Your task to perform on an android device: Open ESPN.com Image 0: 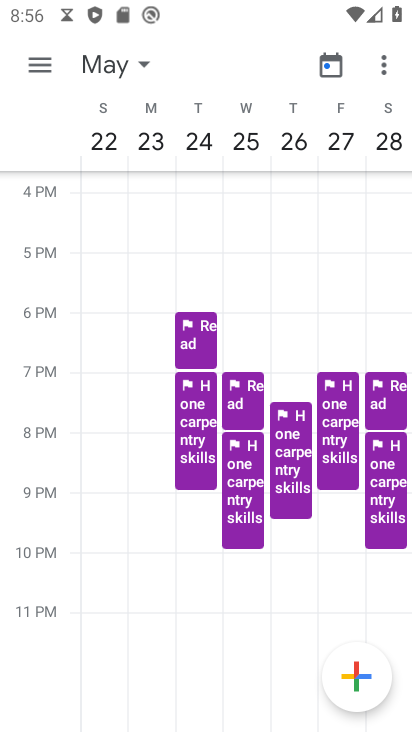
Step 0: press home button
Your task to perform on an android device: Open ESPN.com Image 1: 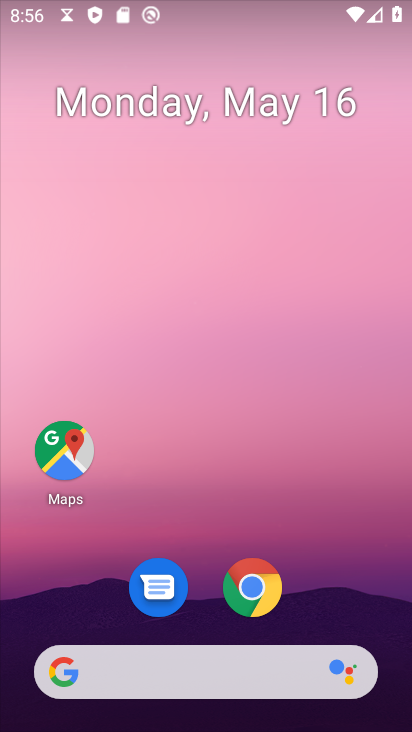
Step 1: click (246, 573)
Your task to perform on an android device: Open ESPN.com Image 2: 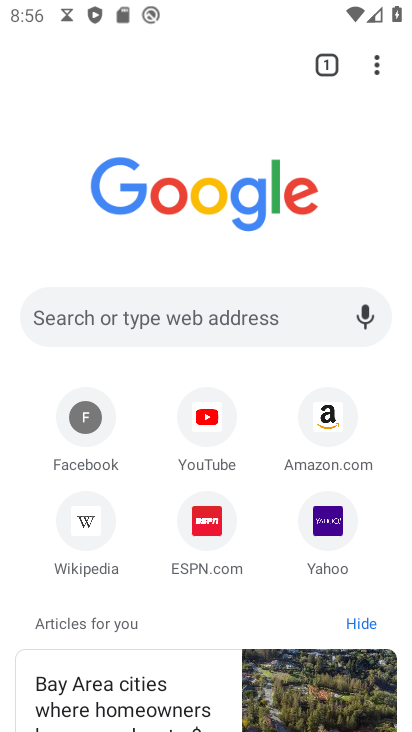
Step 2: click (213, 557)
Your task to perform on an android device: Open ESPN.com Image 3: 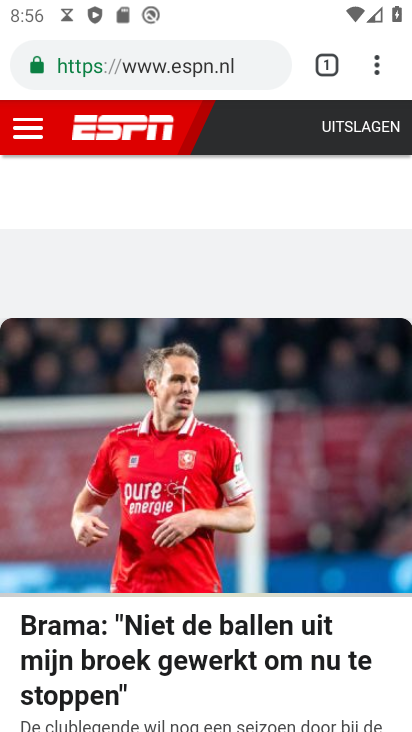
Step 3: task complete